Your task to perform on an android device: Open display settings Image 0: 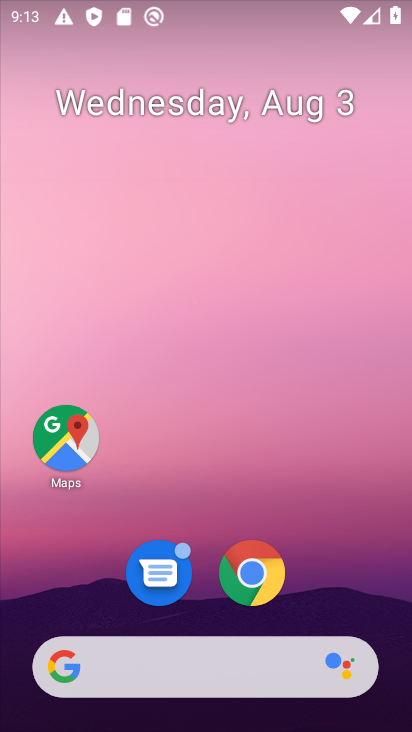
Step 0: drag from (223, 676) to (212, 50)
Your task to perform on an android device: Open display settings Image 1: 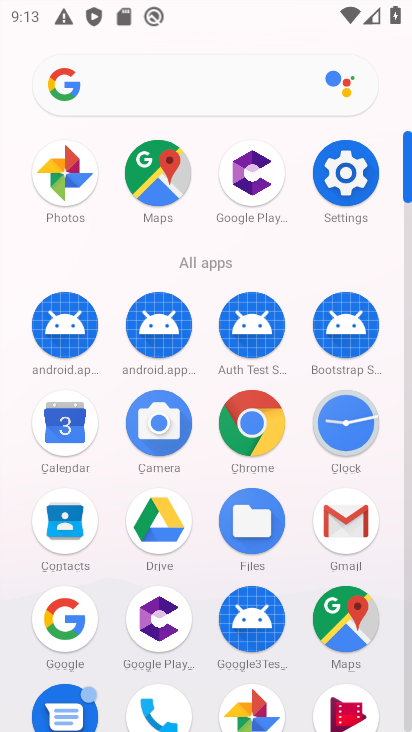
Step 1: click (362, 181)
Your task to perform on an android device: Open display settings Image 2: 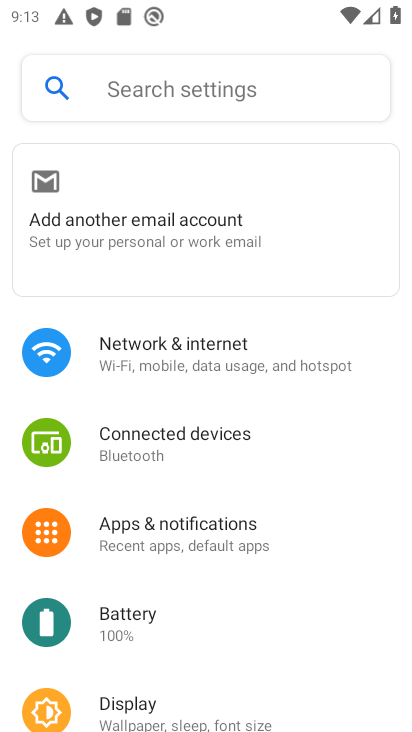
Step 2: click (143, 703)
Your task to perform on an android device: Open display settings Image 3: 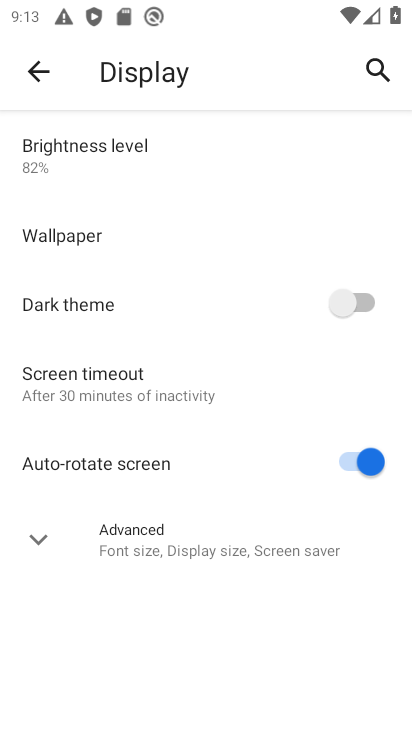
Step 3: task complete